Your task to perform on an android device: see creations saved in the google photos Image 0: 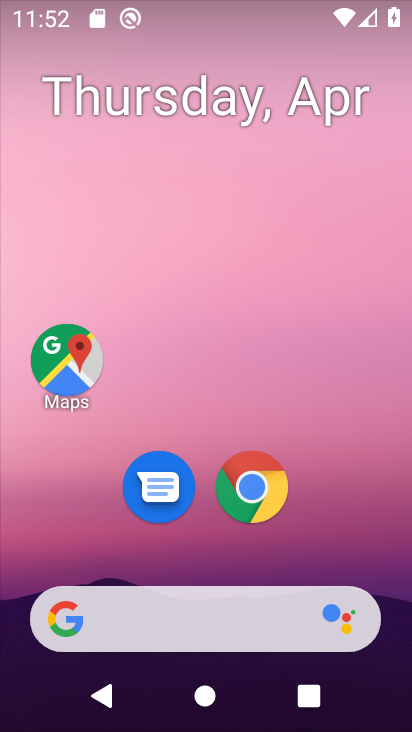
Step 0: drag from (338, 338) to (369, 143)
Your task to perform on an android device: see creations saved in the google photos Image 1: 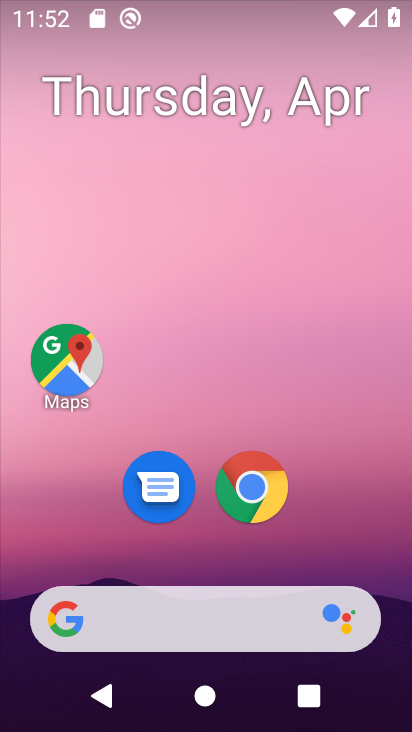
Step 1: drag from (226, 466) to (219, 235)
Your task to perform on an android device: see creations saved in the google photos Image 2: 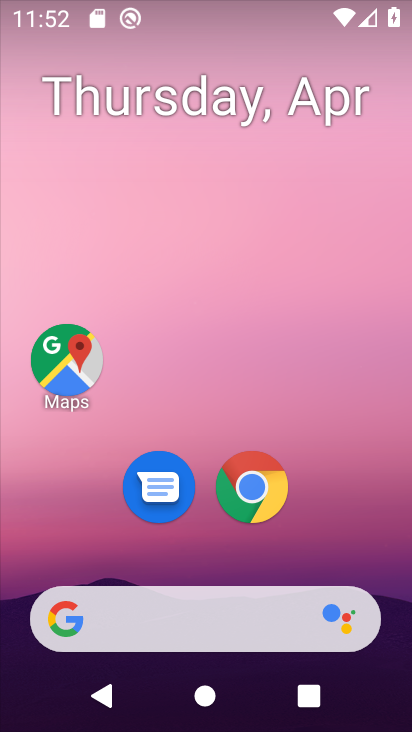
Step 2: drag from (206, 538) to (241, 257)
Your task to perform on an android device: see creations saved in the google photos Image 3: 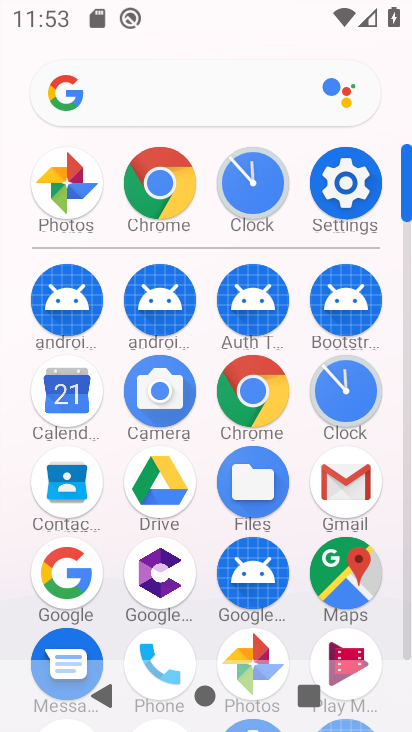
Step 3: click (248, 640)
Your task to perform on an android device: see creations saved in the google photos Image 4: 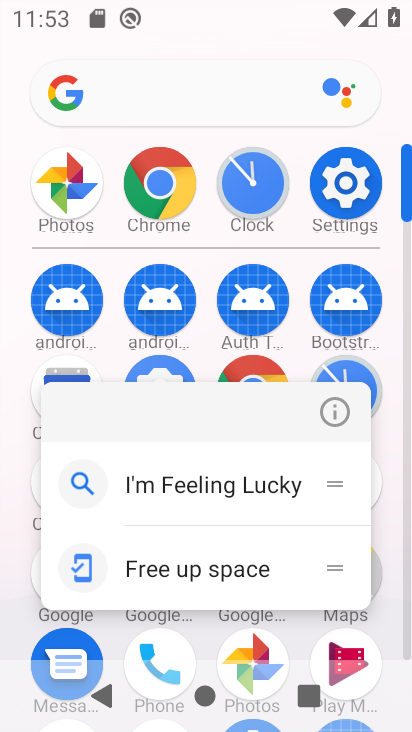
Step 4: click (250, 641)
Your task to perform on an android device: see creations saved in the google photos Image 5: 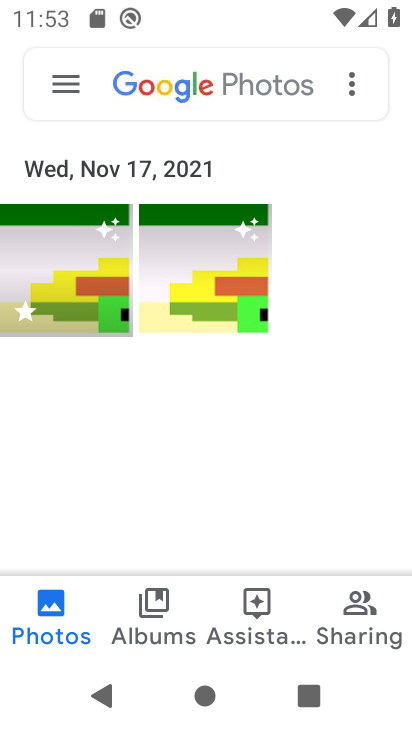
Step 5: click (250, 641)
Your task to perform on an android device: see creations saved in the google photos Image 6: 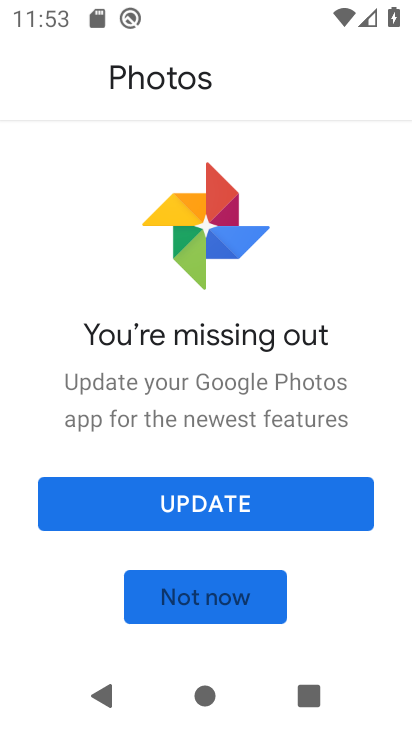
Step 6: click (227, 593)
Your task to perform on an android device: see creations saved in the google photos Image 7: 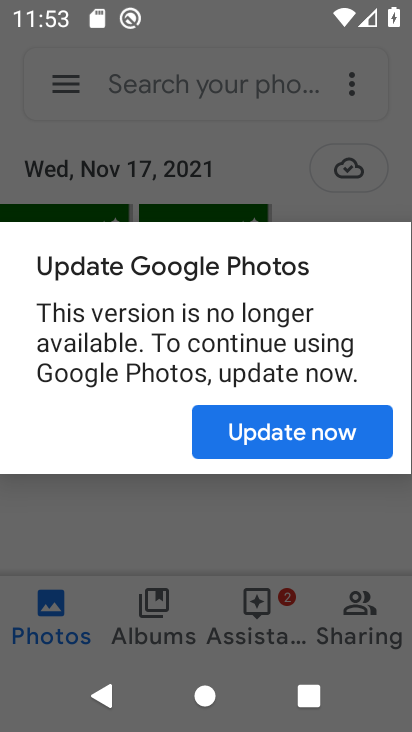
Step 7: click (298, 412)
Your task to perform on an android device: see creations saved in the google photos Image 8: 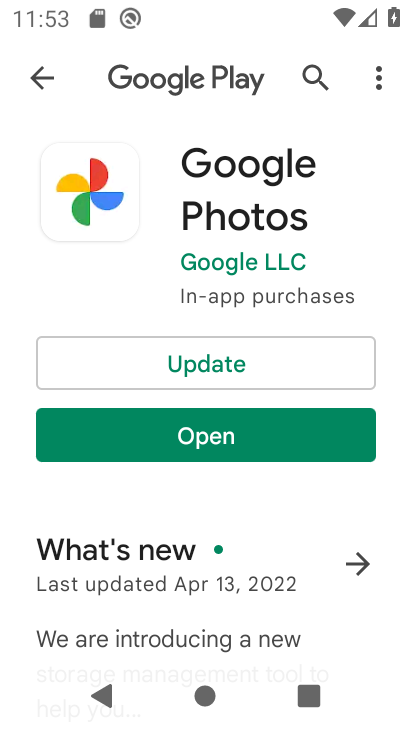
Step 8: press back button
Your task to perform on an android device: see creations saved in the google photos Image 9: 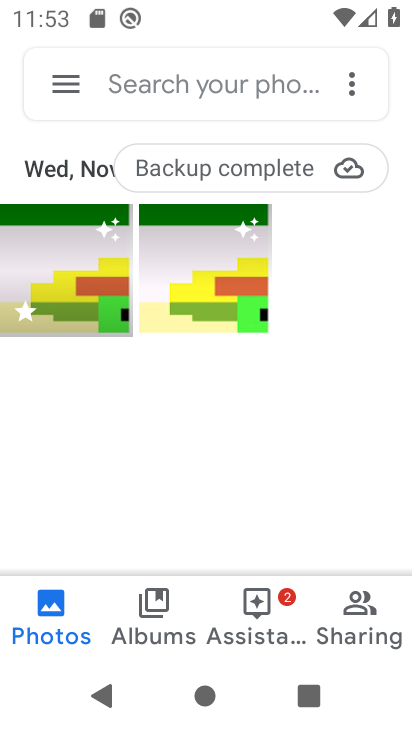
Step 9: click (67, 260)
Your task to perform on an android device: see creations saved in the google photos Image 10: 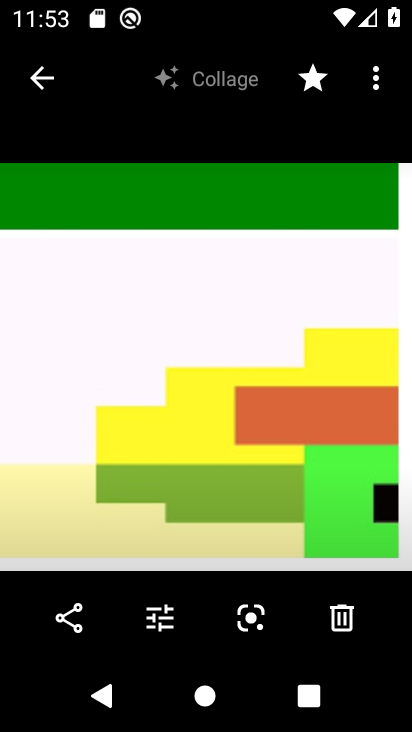
Step 10: task complete